Your task to perform on an android device: turn on the 12-hour format for clock Image 0: 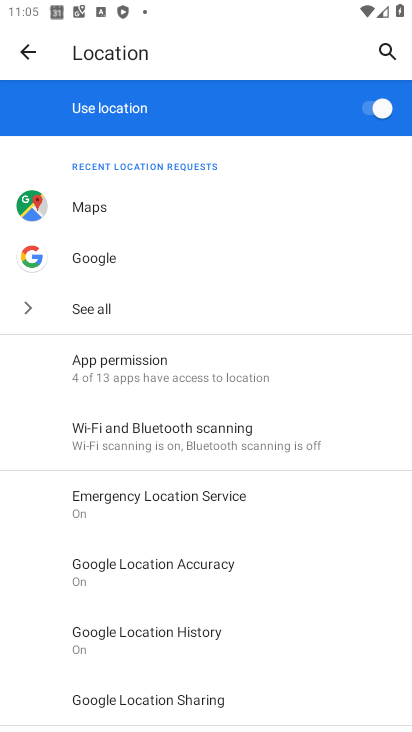
Step 0: press home button
Your task to perform on an android device: turn on the 12-hour format for clock Image 1: 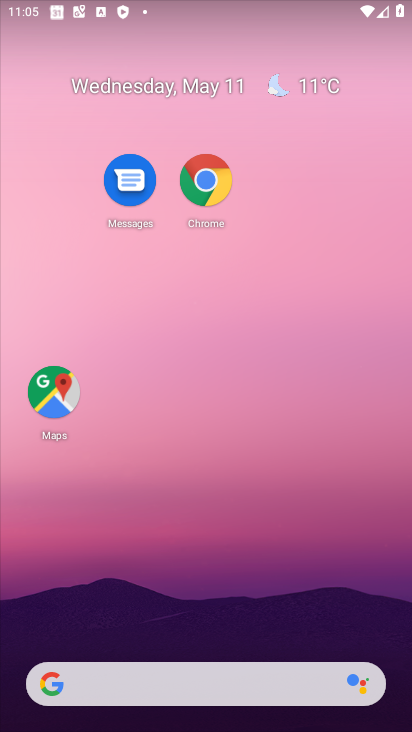
Step 1: drag from (263, 477) to (263, 187)
Your task to perform on an android device: turn on the 12-hour format for clock Image 2: 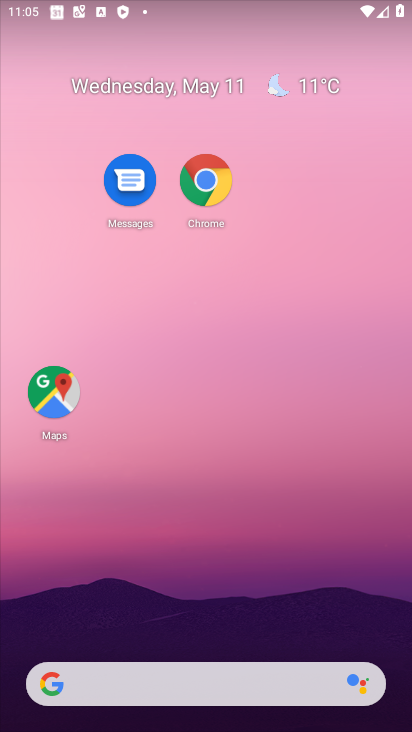
Step 2: drag from (246, 507) to (330, 153)
Your task to perform on an android device: turn on the 12-hour format for clock Image 3: 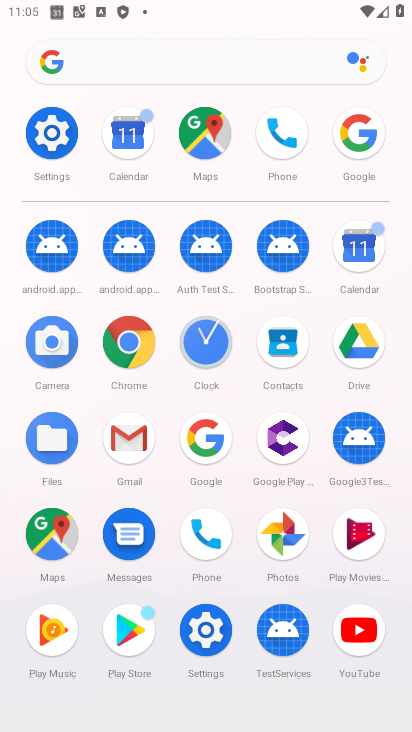
Step 3: click (190, 354)
Your task to perform on an android device: turn on the 12-hour format for clock Image 4: 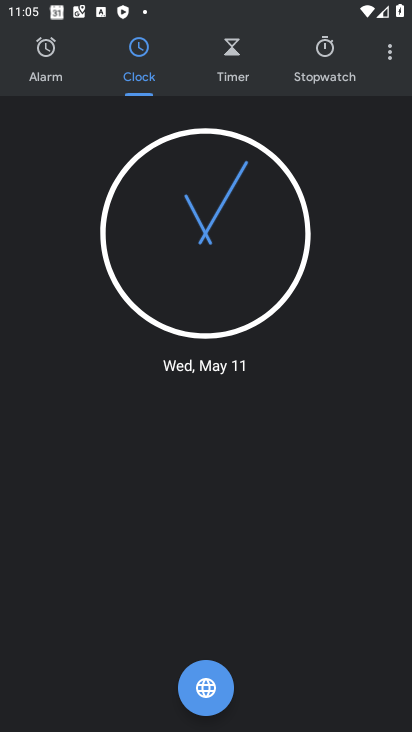
Step 4: click (388, 61)
Your task to perform on an android device: turn on the 12-hour format for clock Image 5: 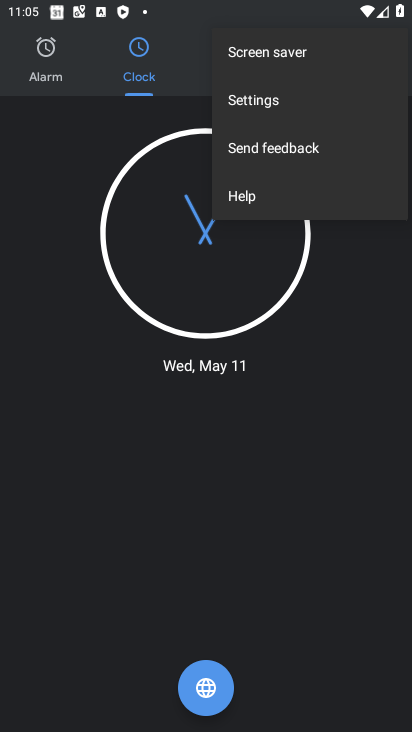
Step 5: click (313, 104)
Your task to perform on an android device: turn on the 12-hour format for clock Image 6: 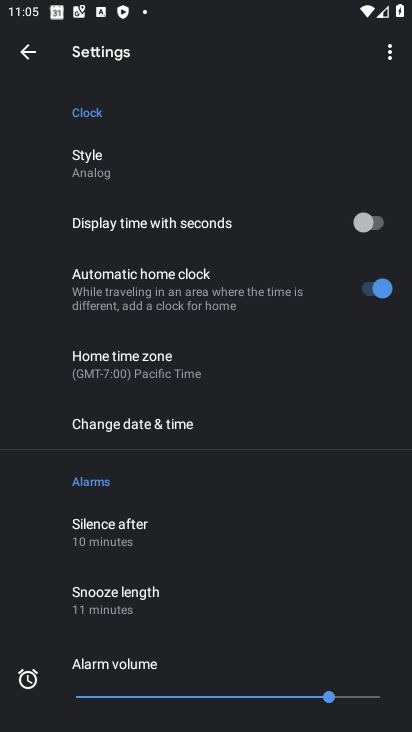
Step 6: drag from (306, 450) to (332, 136)
Your task to perform on an android device: turn on the 12-hour format for clock Image 7: 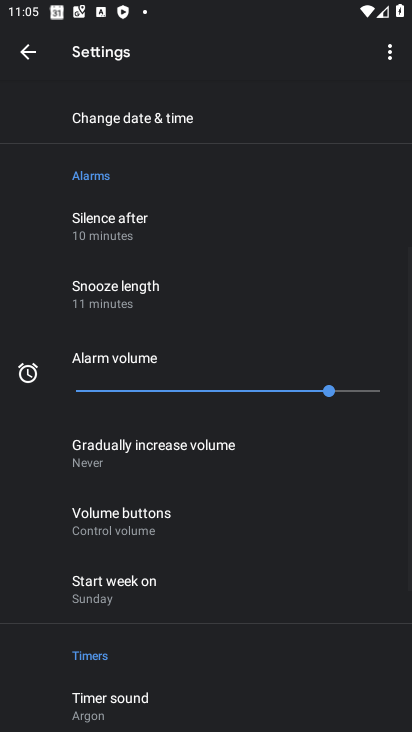
Step 7: click (202, 136)
Your task to perform on an android device: turn on the 12-hour format for clock Image 8: 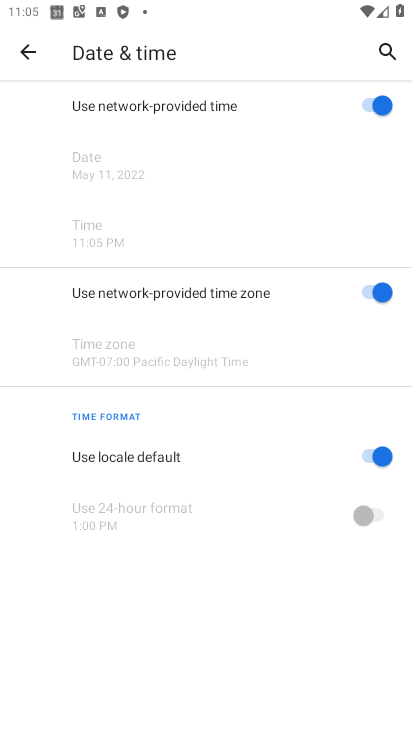
Step 8: task complete